Your task to perform on an android device: choose inbox layout in the gmail app Image 0: 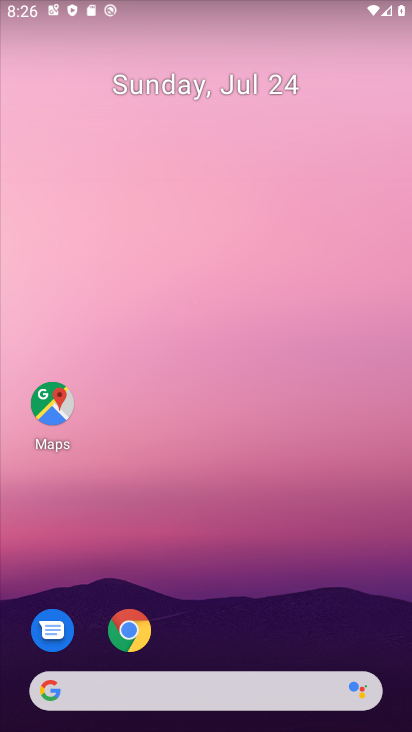
Step 0: drag from (212, 631) to (180, 112)
Your task to perform on an android device: choose inbox layout in the gmail app Image 1: 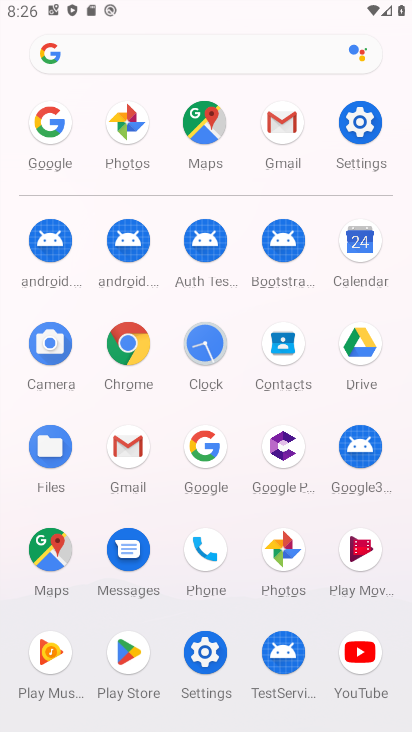
Step 1: click (278, 123)
Your task to perform on an android device: choose inbox layout in the gmail app Image 2: 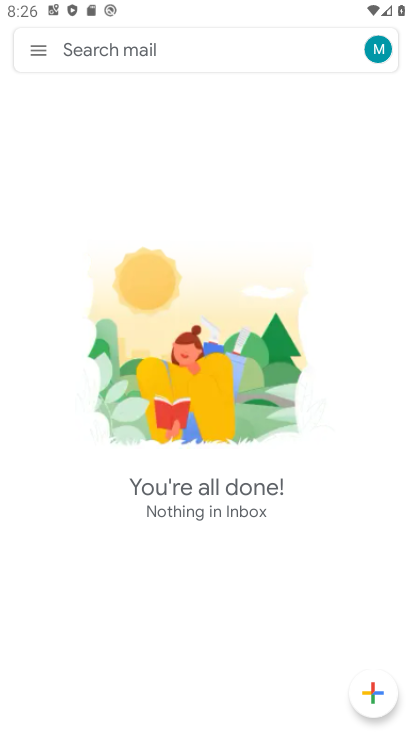
Step 2: click (44, 59)
Your task to perform on an android device: choose inbox layout in the gmail app Image 3: 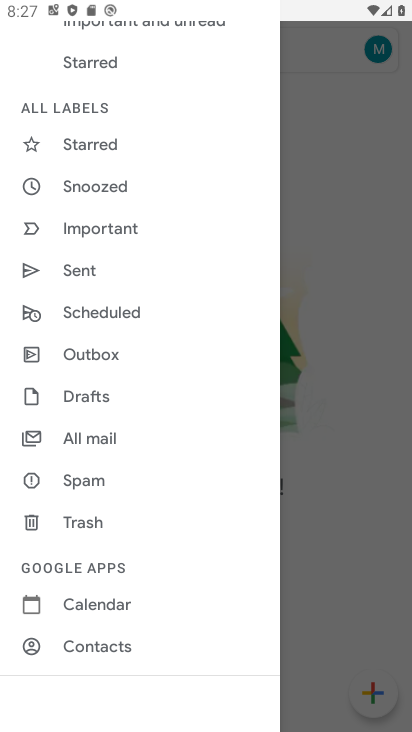
Step 3: drag from (147, 619) to (148, 255)
Your task to perform on an android device: choose inbox layout in the gmail app Image 4: 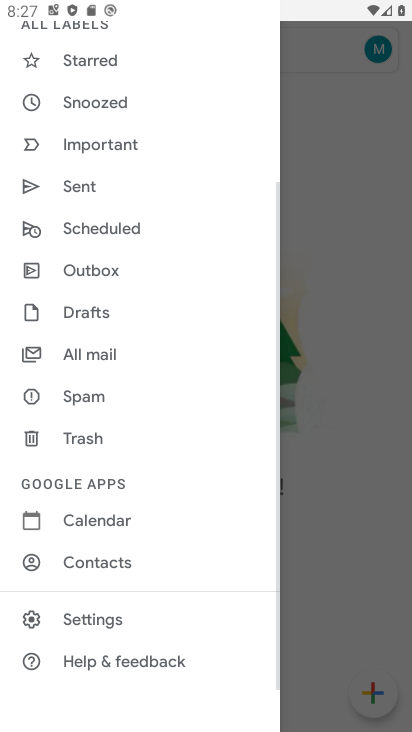
Step 4: click (77, 631)
Your task to perform on an android device: choose inbox layout in the gmail app Image 5: 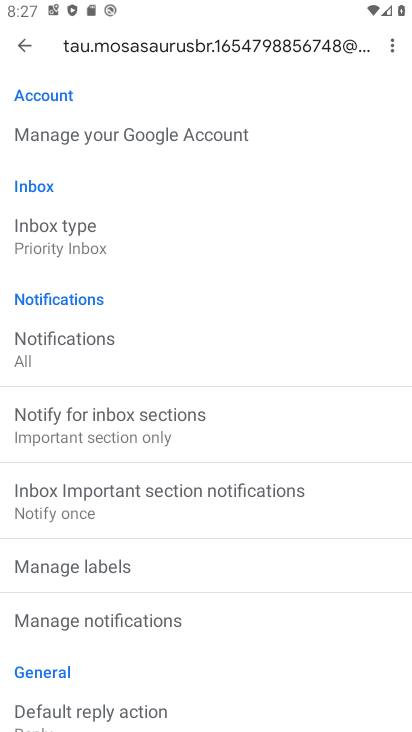
Step 5: click (138, 246)
Your task to perform on an android device: choose inbox layout in the gmail app Image 6: 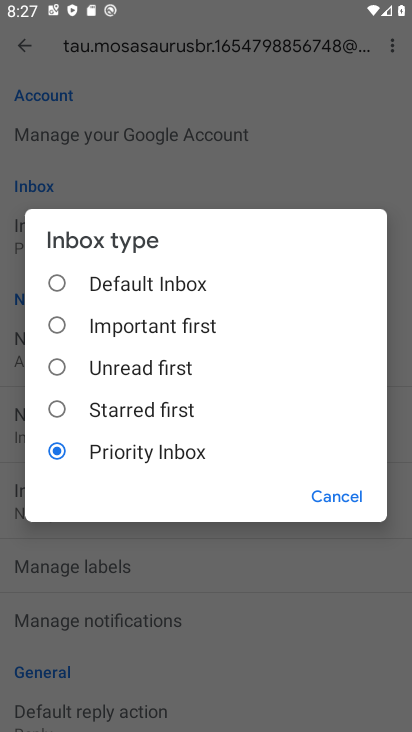
Step 6: click (145, 287)
Your task to perform on an android device: choose inbox layout in the gmail app Image 7: 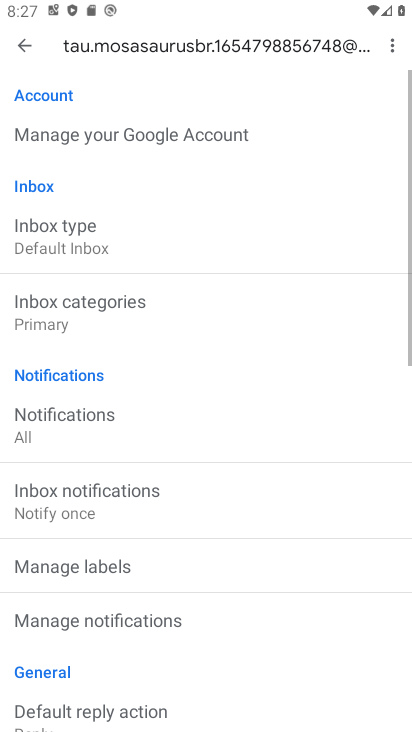
Step 7: task complete